Your task to perform on an android device: turn off smart reply in the gmail app Image 0: 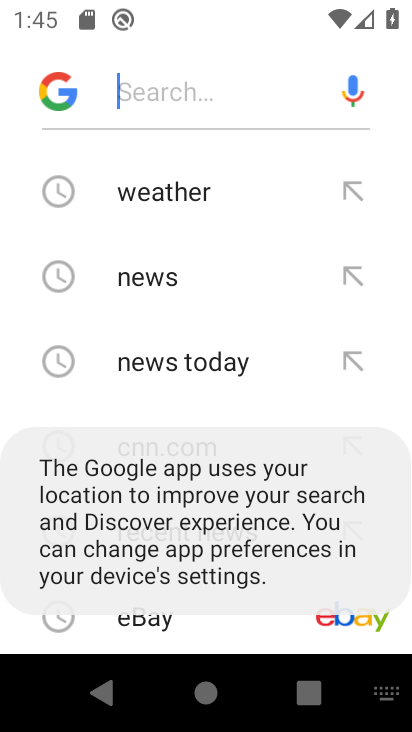
Step 0: press home button
Your task to perform on an android device: turn off smart reply in the gmail app Image 1: 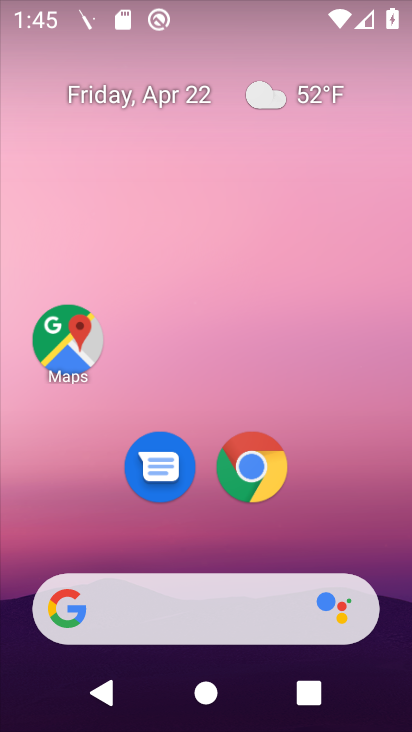
Step 1: drag from (349, 538) to (354, 94)
Your task to perform on an android device: turn off smart reply in the gmail app Image 2: 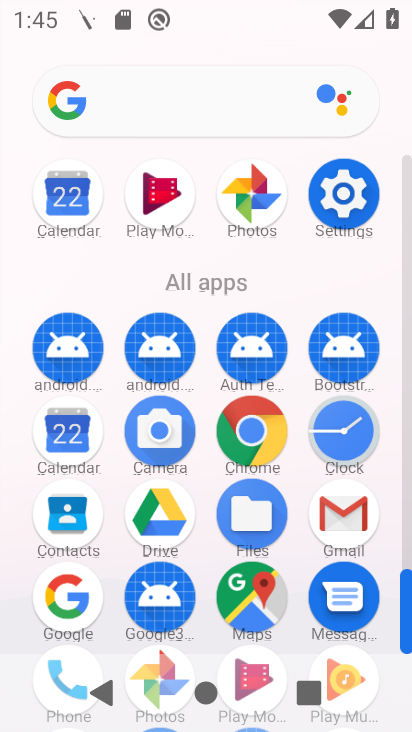
Step 2: click (361, 523)
Your task to perform on an android device: turn off smart reply in the gmail app Image 3: 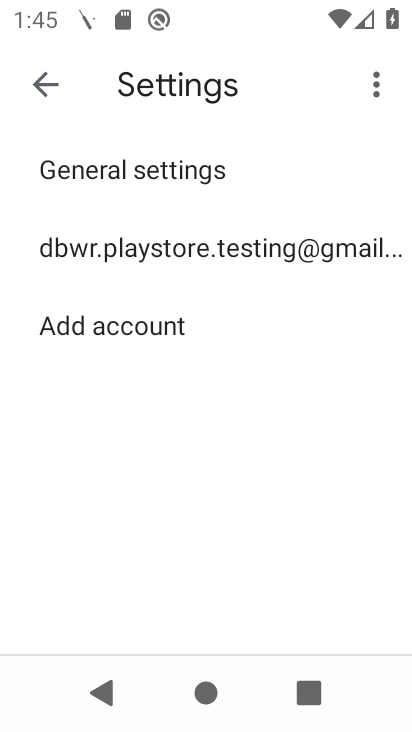
Step 3: click (144, 259)
Your task to perform on an android device: turn off smart reply in the gmail app Image 4: 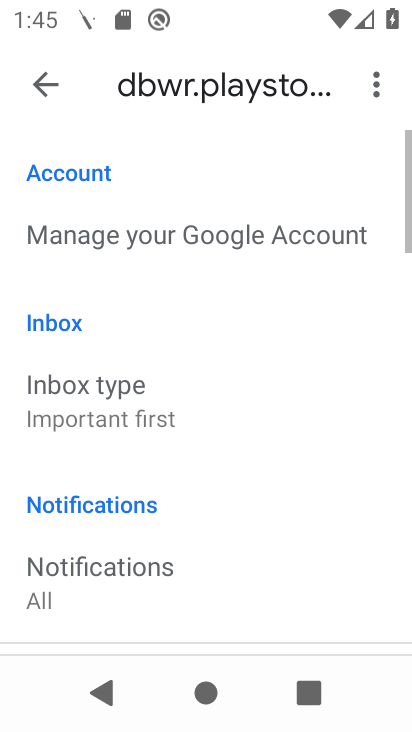
Step 4: drag from (151, 586) to (194, 257)
Your task to perform on an android device: turn off smart reply in the gmail app Image 5: 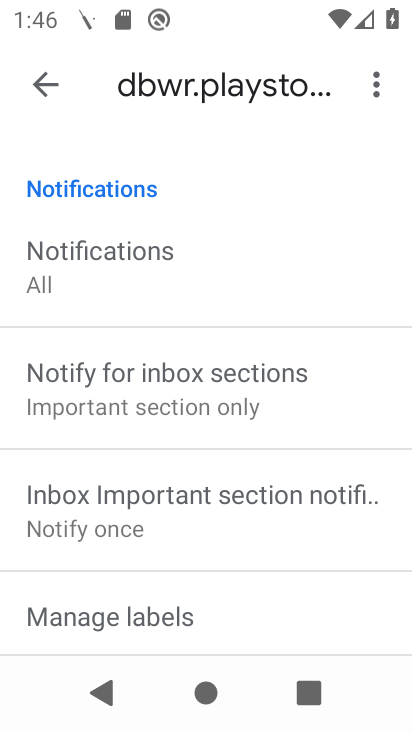
Step 5: drag from (171, 582) to (208, 241)
Your task to perform on an android device: turn off smart reply in the gmail app Image 6: 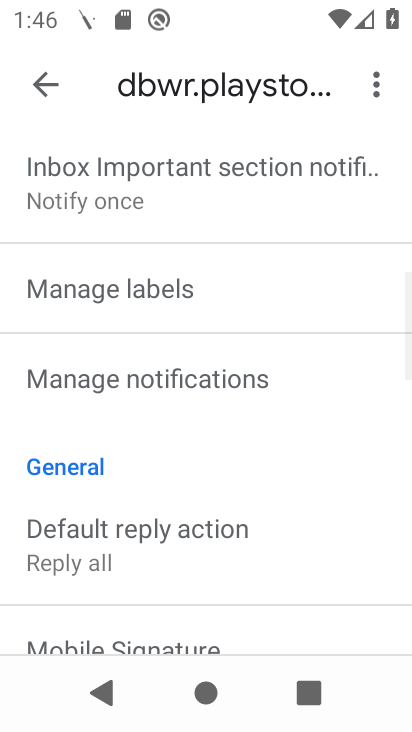
Step 6: drag from (171, 596) to (211, 298)
Your task to perform on an android device: turn off smart reply in the gmail app Image 7: 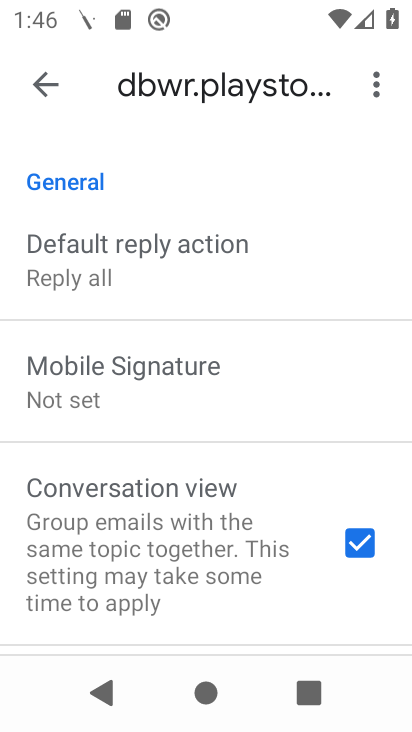
Step 7: drag from (214, 592) to (251, 300)
Your task to perform on an android device: turn off smart reply in the gmail app Image 8: 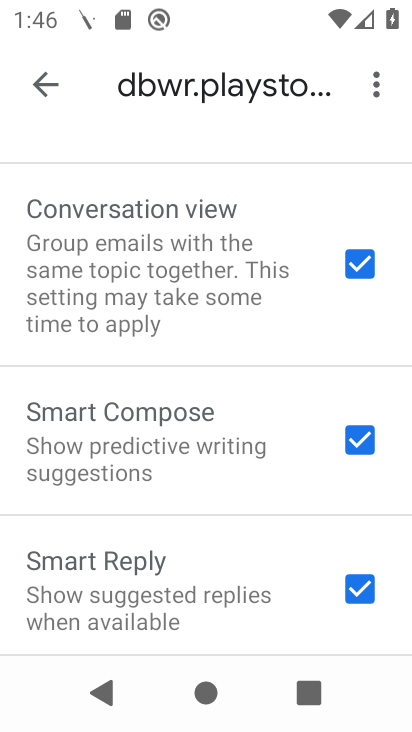
Step 8: click (361, 594)
Your task to perform on an android device: turn off smart reply in the gmail app Image 9: 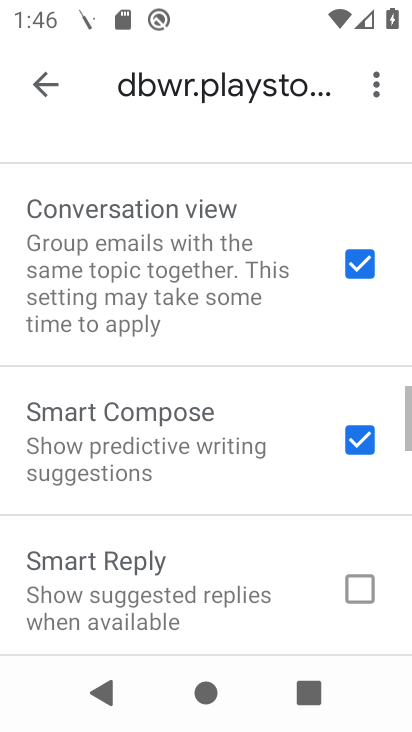
Step 9: task complete